Your task to perform on an android device: change your default location settings in chrome Image 0: 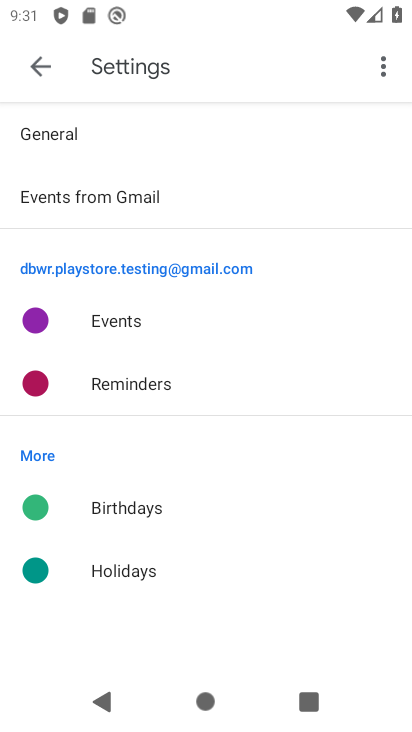
Step 0: press home button
Your task to perform on an android device: change your default location settings in chrome Image 1: 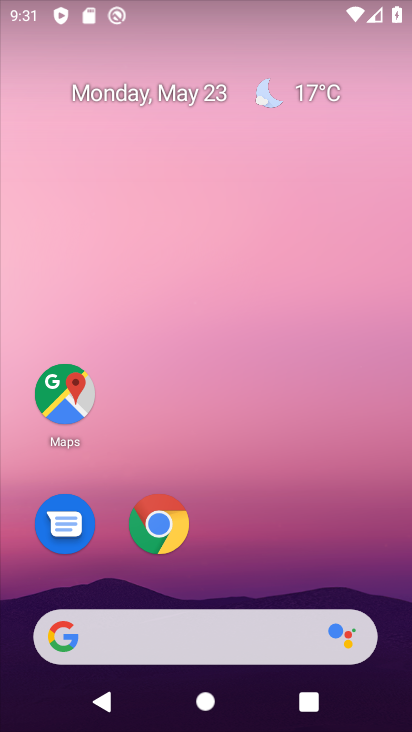
Step 1: click (131, 550)
Your task to perform on an android device: change your default location settings in chrome Image 2: 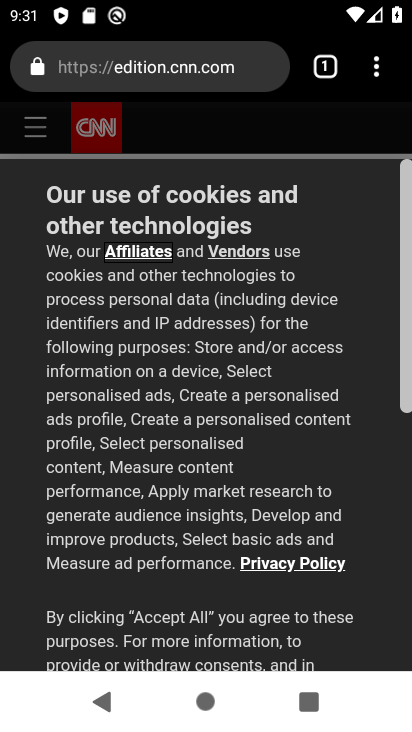
Step 2: drag from (377, 71) to (138, 528)
Your task to perform on an android device: change your default location settings in chrome Image 3: 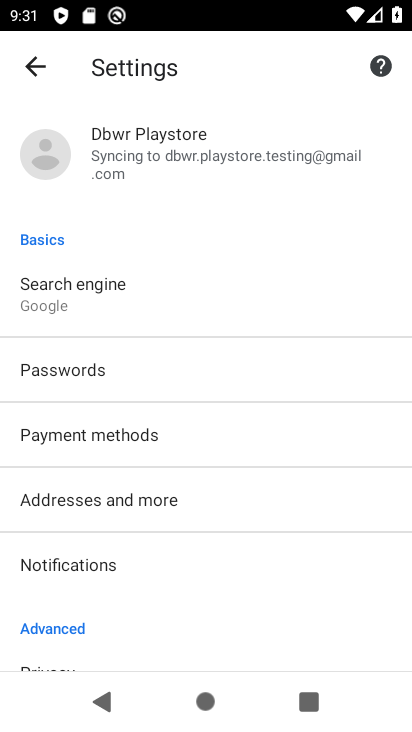
Step 3: drag from (209, 587) to (220, 178)
Your task to perform on an android device: change your default location settings in chrome Image 4: 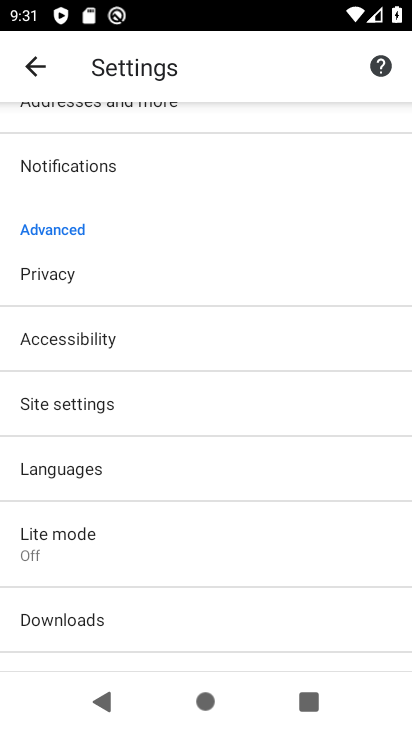
Step 4: click (110, 402)
Your task to perform on an android device: change your default location settings in chrome Image 5: 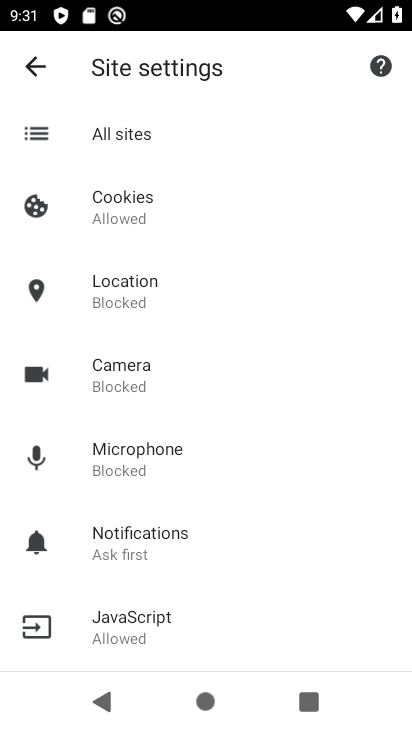
Step 5: click (149, 300)
Your task to perform on an android device: change your default location settings in chrome Image 6: 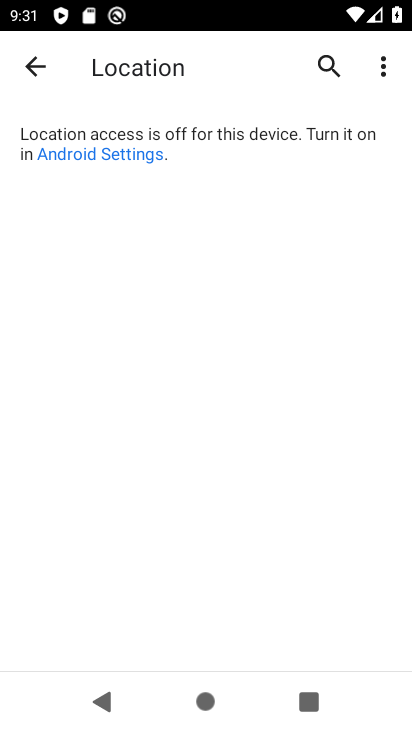
Step 6: task complete